Your task to perform on an android device: Search for flights from San Diego to Seattle Image 0: 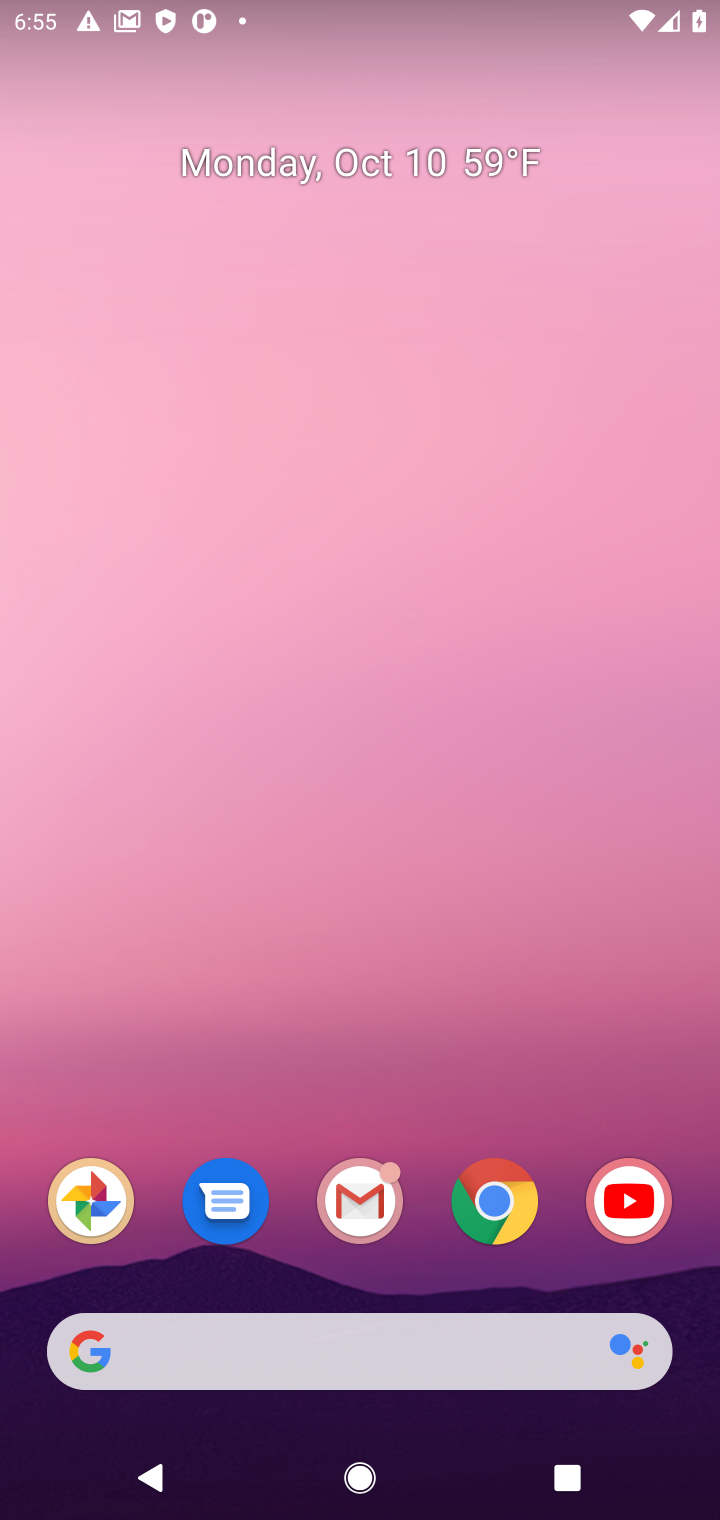
Step 0: drag from (419, 752) to (382, 81)
Your task to perform on an android device: Search for flights from San Diego to Seattle Image 1: 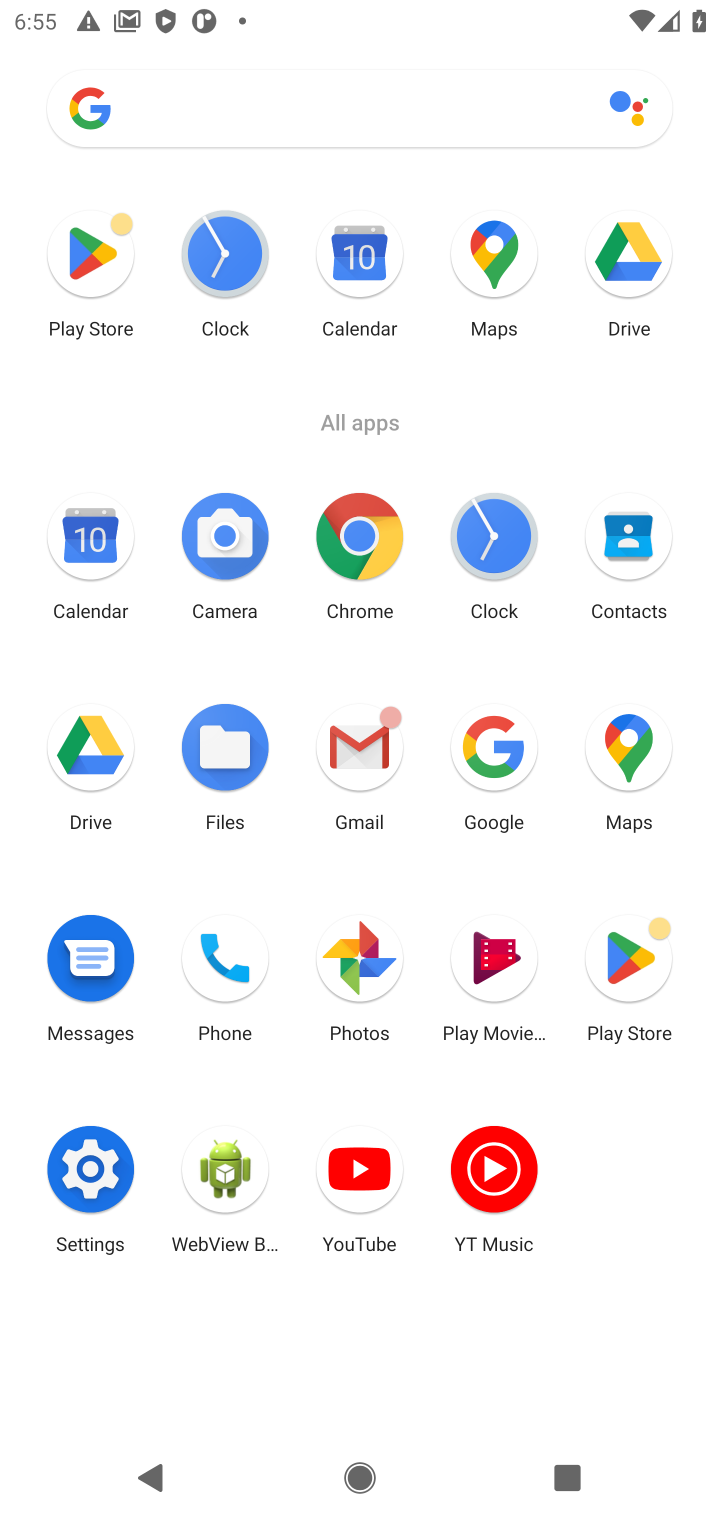
Step 1: click (495, 739)
Your task to perform on an android device: Search for flights from San Diego to Seattle Image 2: 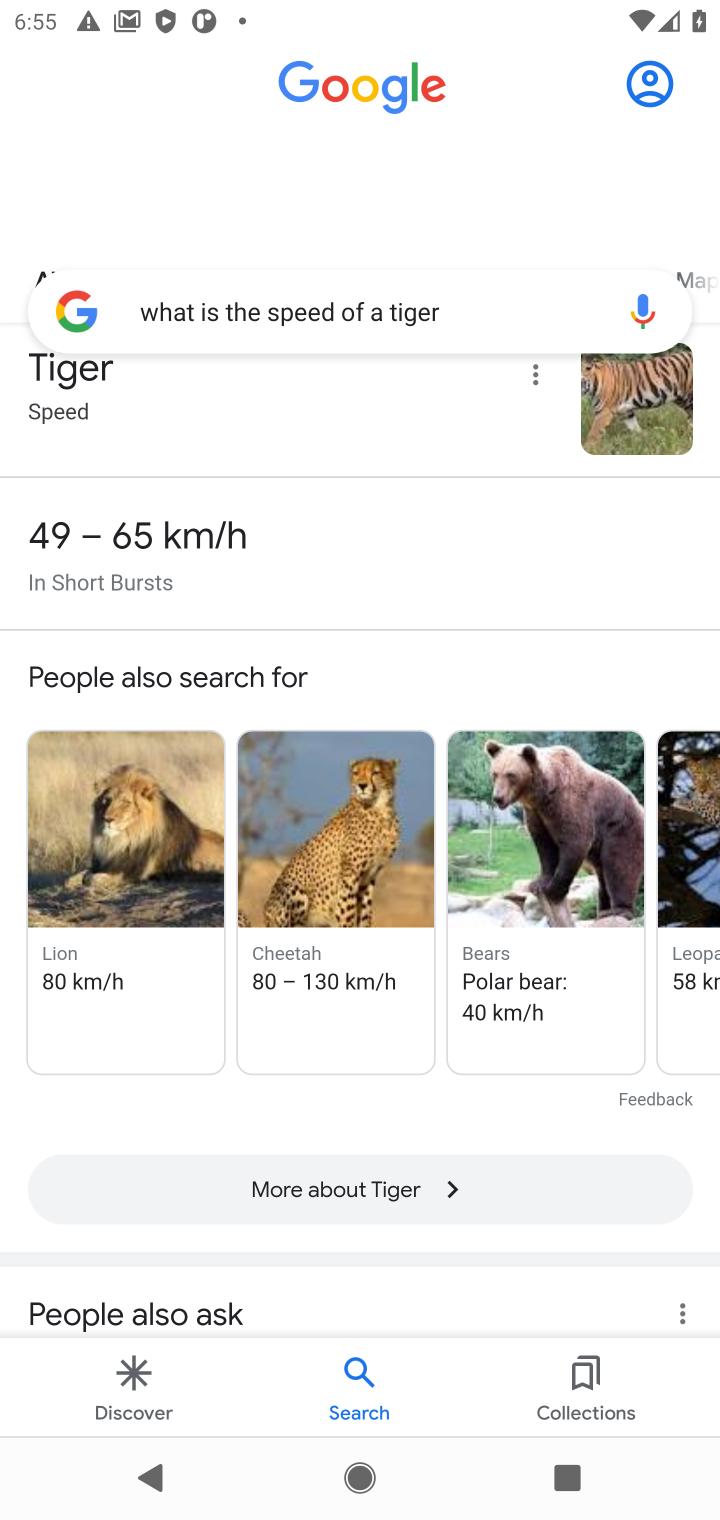
Step 2: drag from (690, 1507) to (711, 665)
Your task to perform on an android device: Search for flights from San Diego to Seattle Image 3: 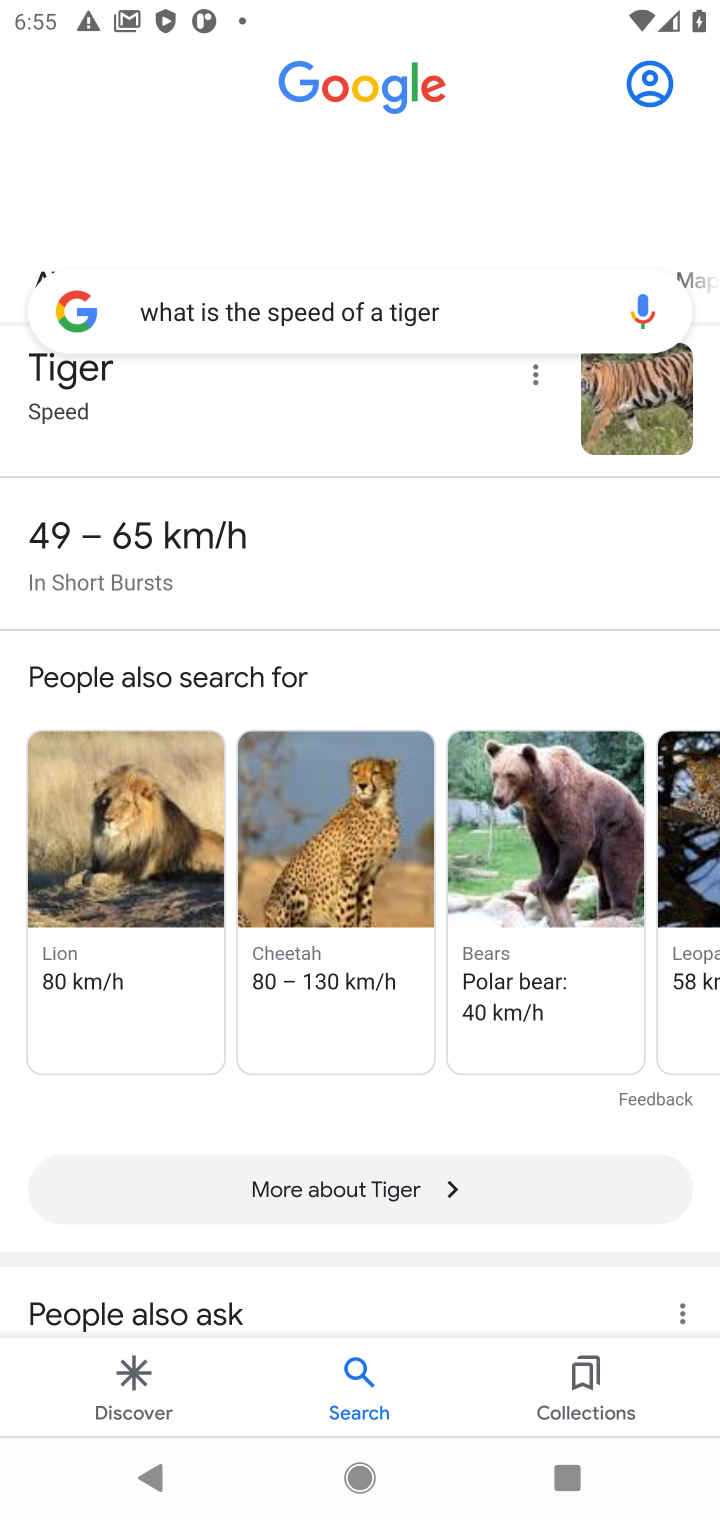
Step 3: click (437, 311)
Your task to perform on an android device: Search for flights from San Diego to Seattle Image 4: 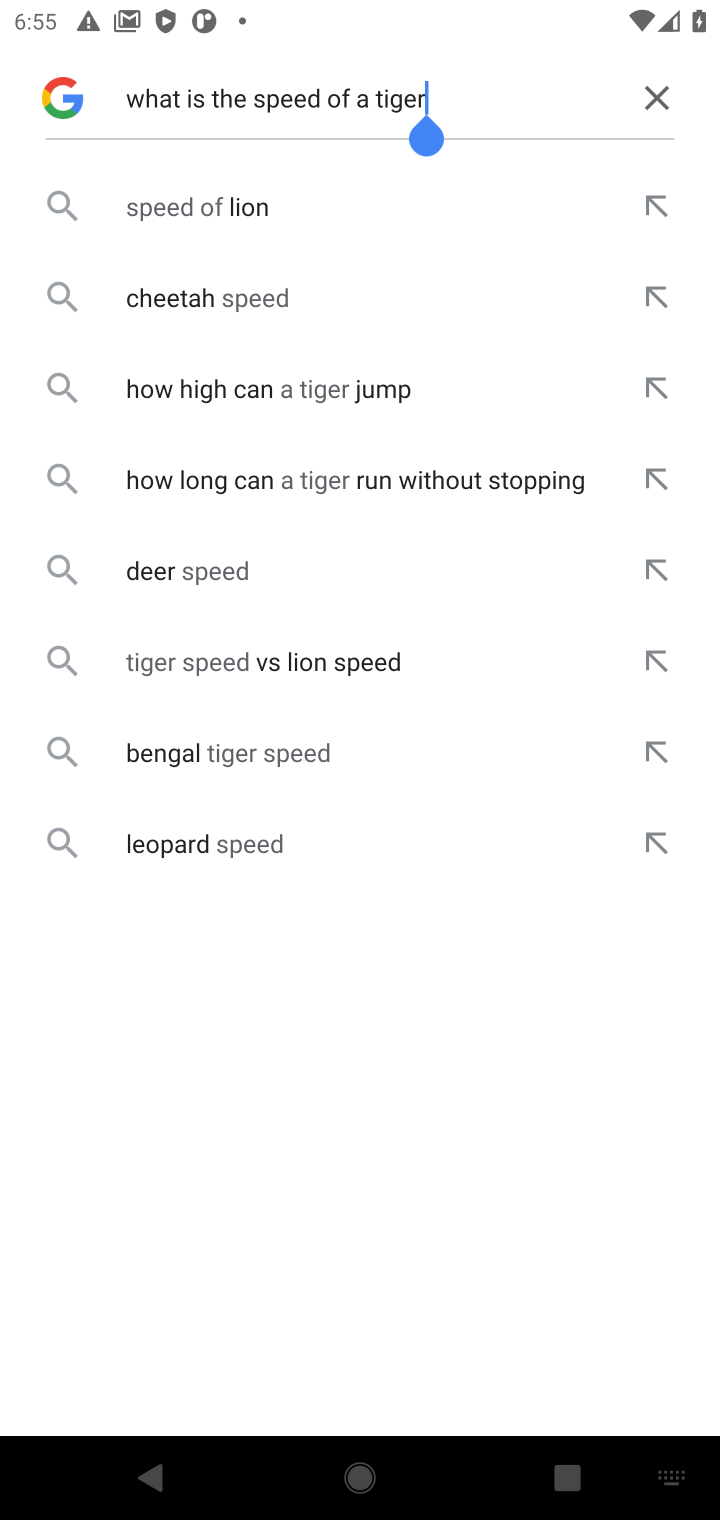
Step 4: click (664, 93)
Your task to perform on an android device: Search for flights from San Diego to Seattle Image 5: 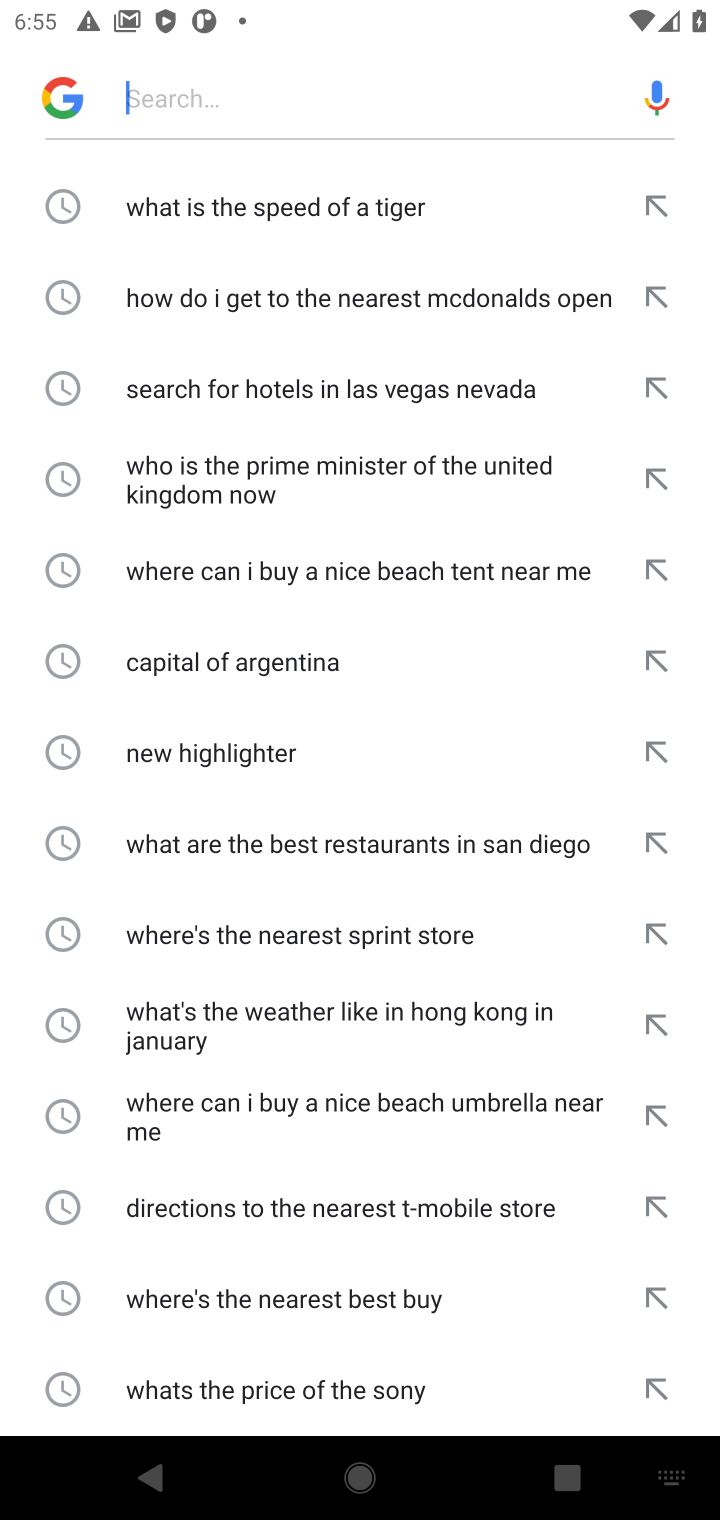
Step 5: type "Search for flights from San Diego to Seattle"
Your task to perform on an android device: Search for flights from San Diego to Seattle Image 6: 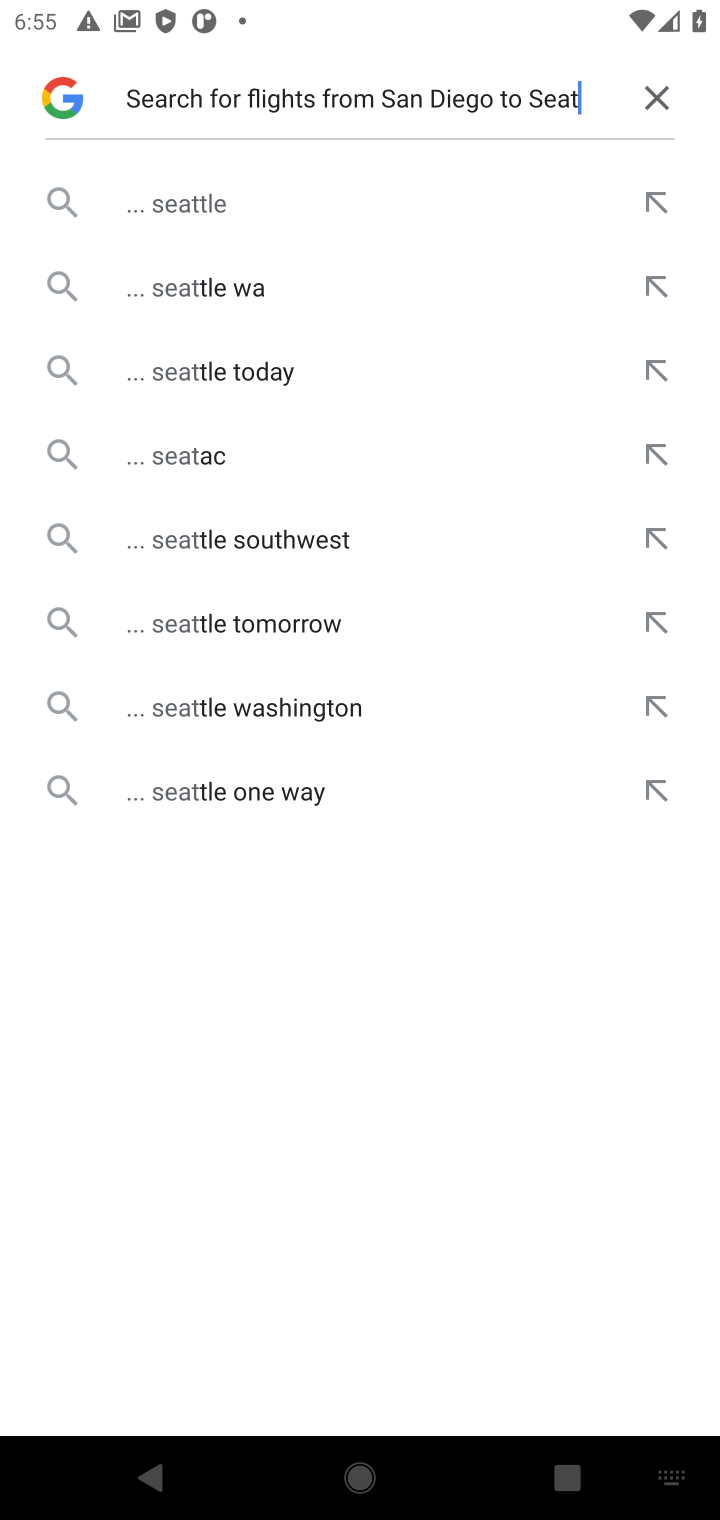
Step 6: click (183, 206)
Your task to perform on an android device: Search for flights from San Diego to Seattle Image 7: 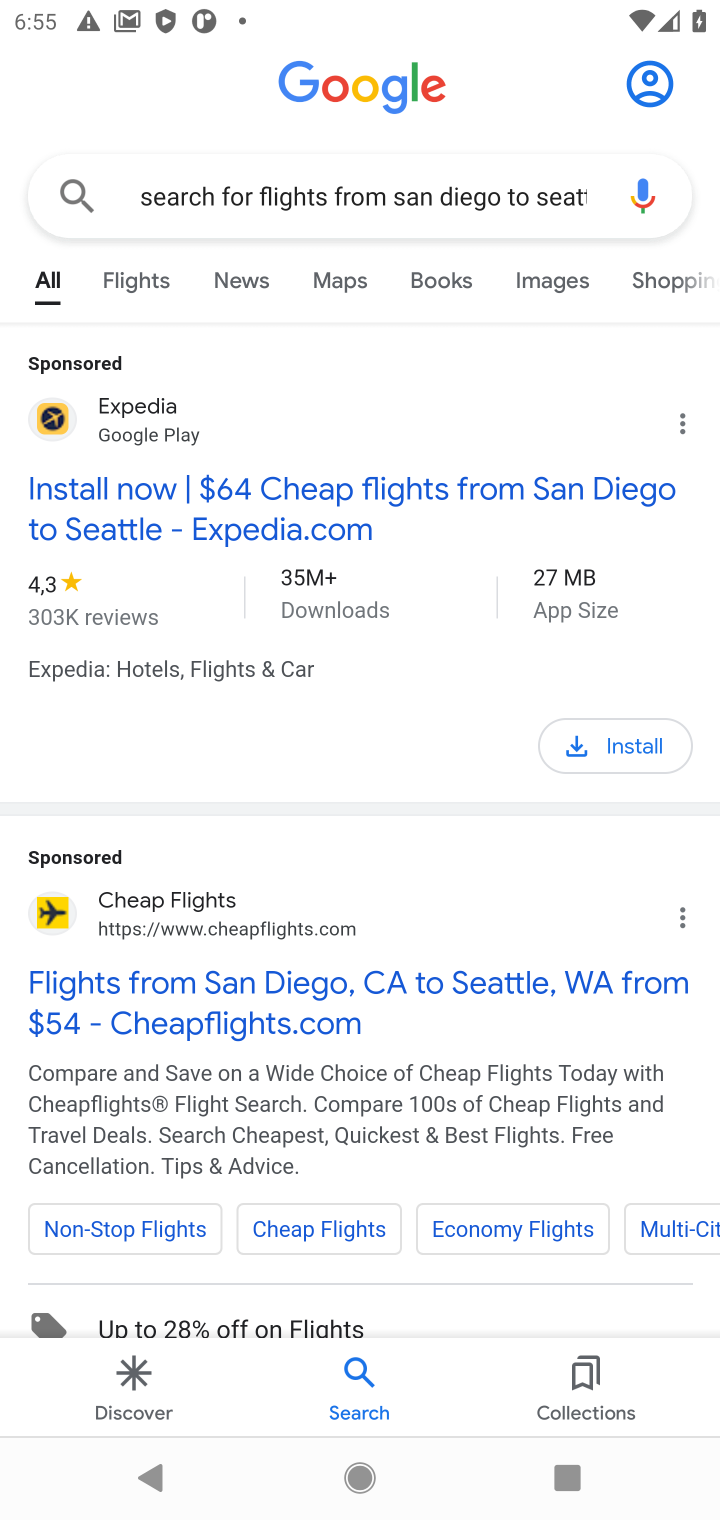
Step 7: click (337, 508)
Your task to perform on an android device: Search for flights from San Diego to Seattle Image 8: 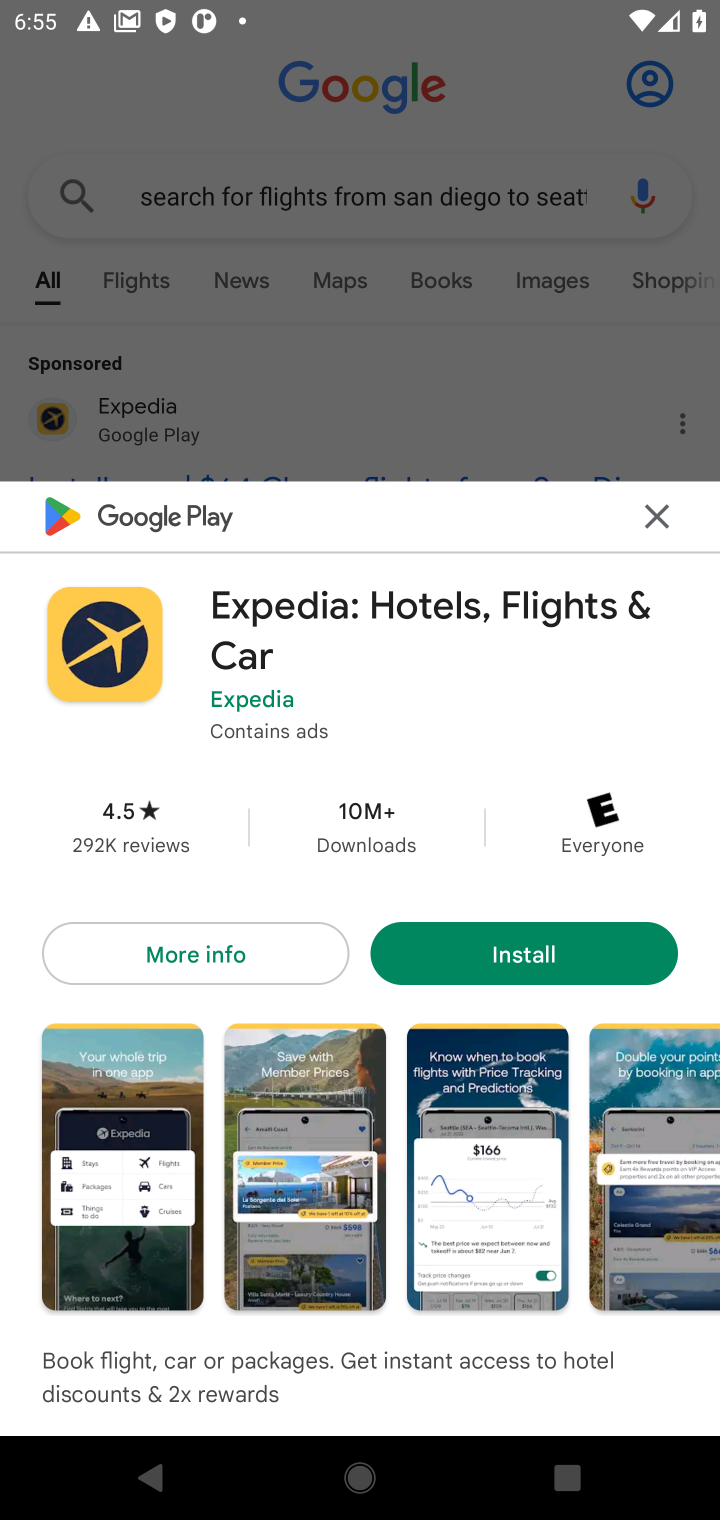
Step 8: task complete